Your task to perform on an android device: What's the weather going to be tomorrow? Image 0: 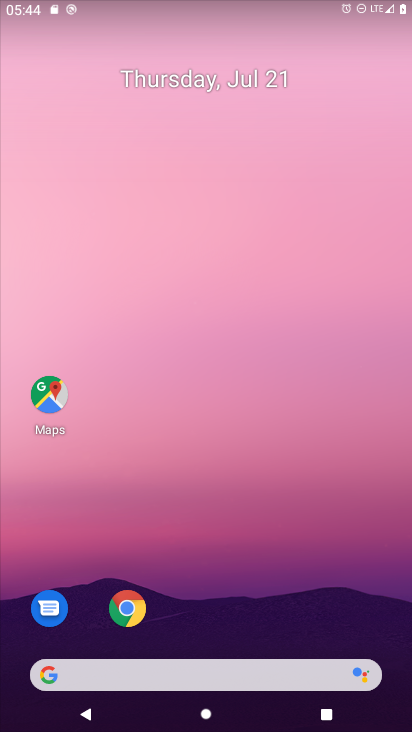
Step 0: drag from (291, 679) to (332, 42)
Your task to perform on an android device: What's the weather going to be tomorrow? Image 1: 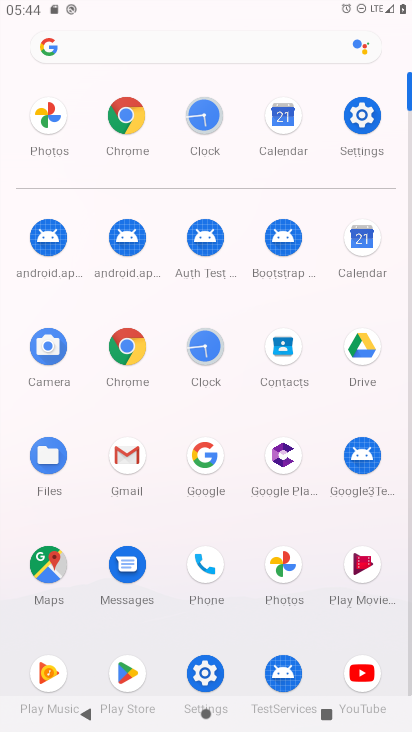
Step 1: click (132, 356)
Your task to perform on an android device: What's the weather going to be tomorrow? Image 2: 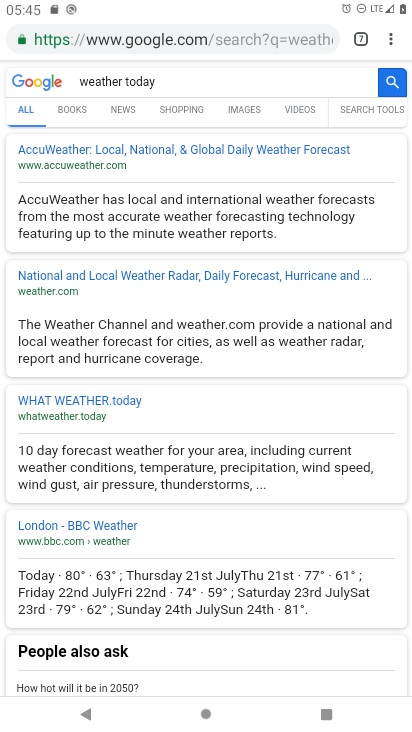
Step 2: click (269, 27)
Your task to perform on an android device: What's the weather going to be tomorrow? Image 3: 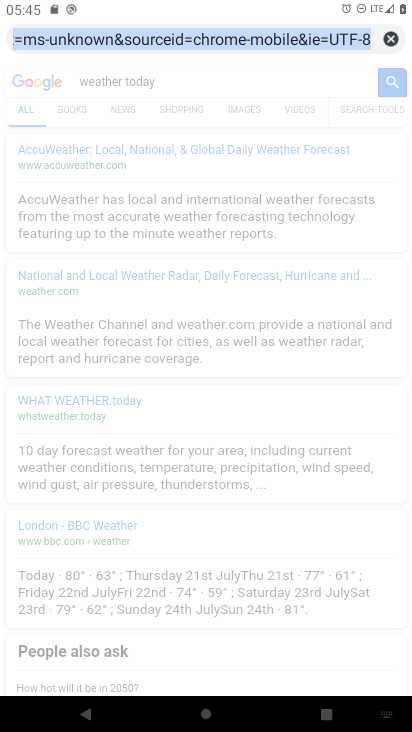
Step 3: type "weather going to be tomorrow"
Your task to perform on an android device: What's the weather going to be tomorrow? Image 4: 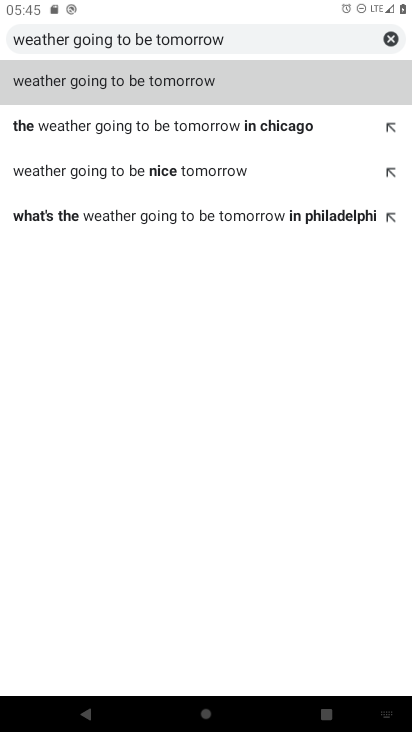
Step 4: click (76, 87)
Your task to perform on an android device: What's the weather going to be tomorrow? Image 5: 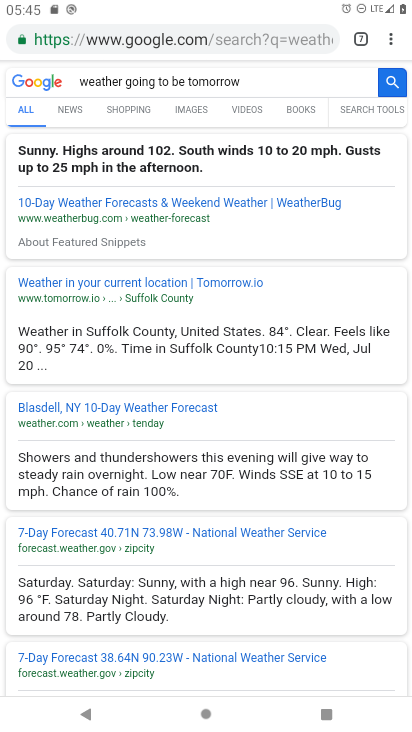
Step 5: task complete